Your task to perform on an android device: open chrome and create a bookmark for the current page Image 0: 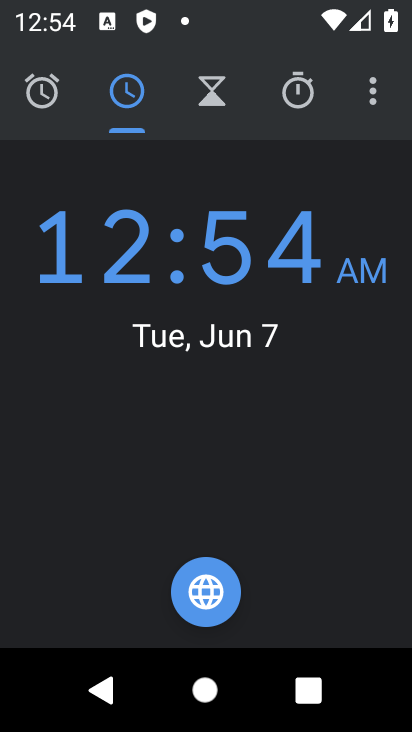
Step 0: press home button
Your task to perform on an android device: open chrome and create a bookmark for the current page Image 1: 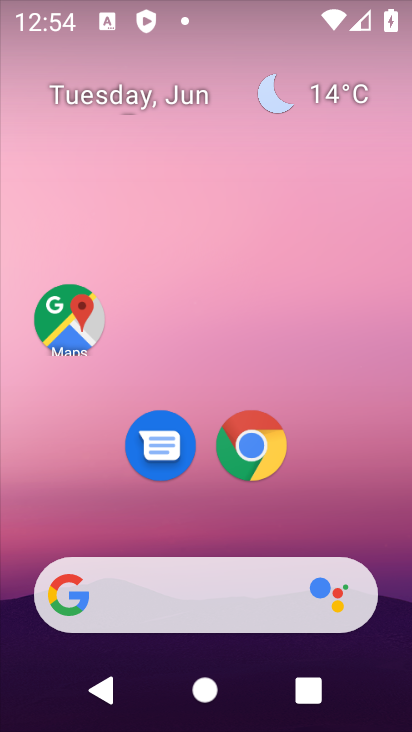
Step 1: click (251, 408)
Your task to perform on an android device: open chrome and create a bookmark for the current page Image 2: 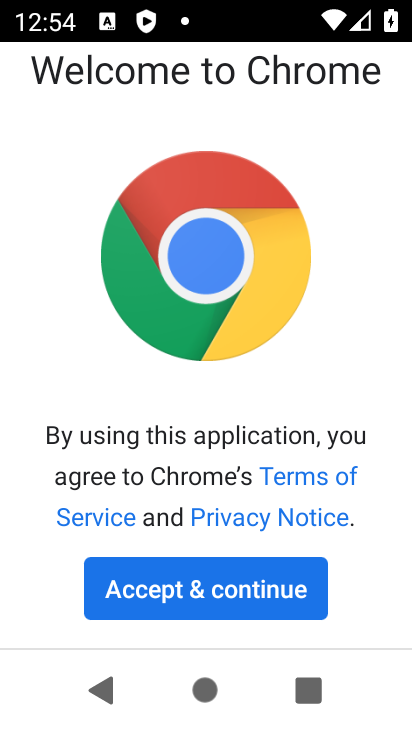
Step 2: click (151, 569)
Your task to perform on an android device: open chrome and create a bookmark for the current page Image 3: 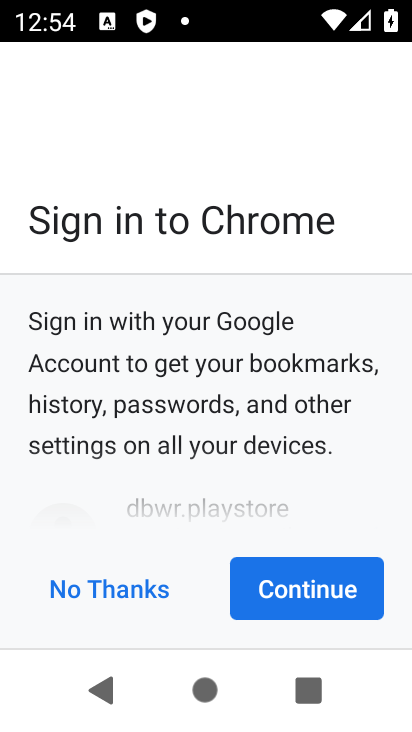
Step 3: click (278, 591)
Your task to perform on an android device: open chrome and create a bookmark for the current page Image 4: 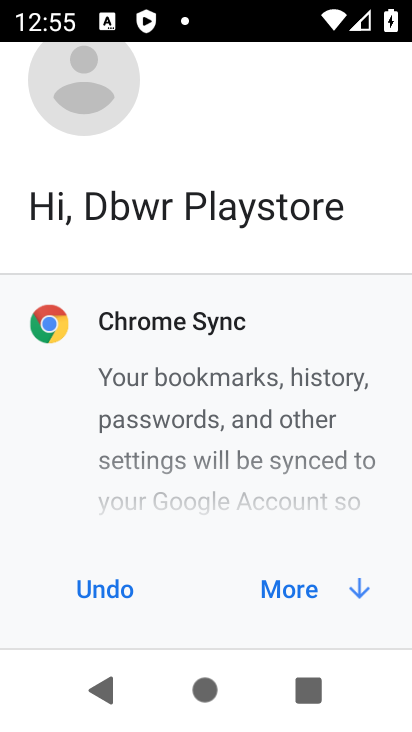
Step 4: click (278, 591)
Your task to perform on an android device: open chrome and create a bookmark for the current page Image 5: 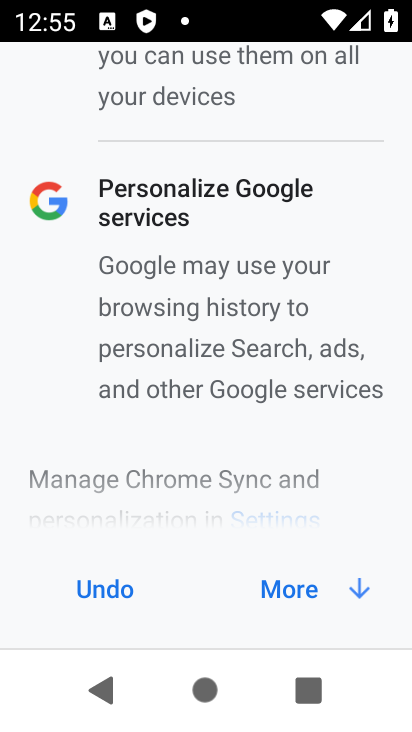
Step 5: click (278, 591)
Your task to perform on an android device: open chrome and create a bookmark for the current page Image 6: 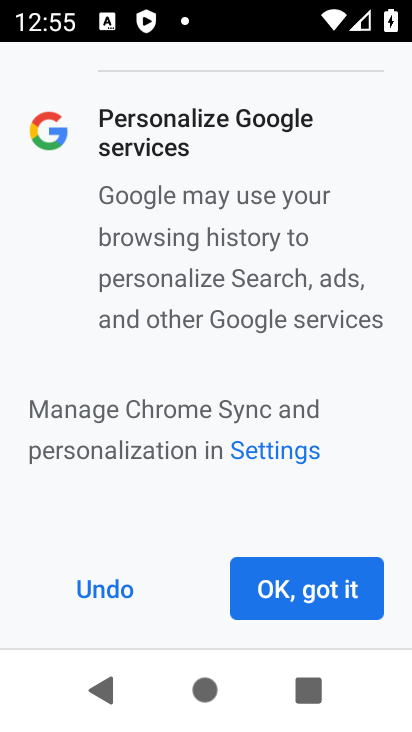
Step 6: click (278, 591)
Your task to perform on an android device: open chrome and create a bookmark for the current page Image 7: 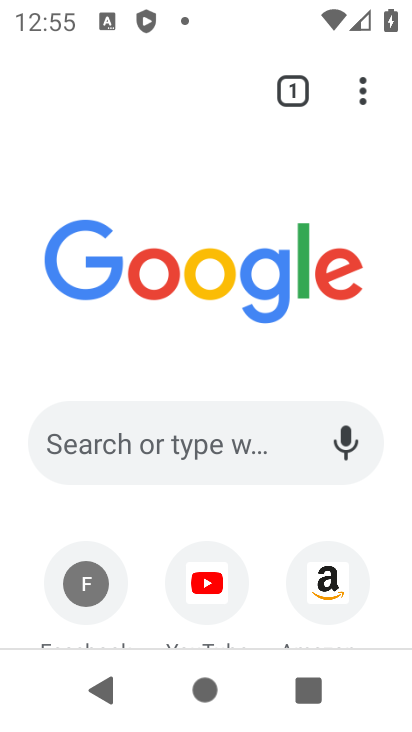
Step 7: click (376, 99)
Your task to perform on an android device: open chrome and create a bookmark for the current page Image 8: 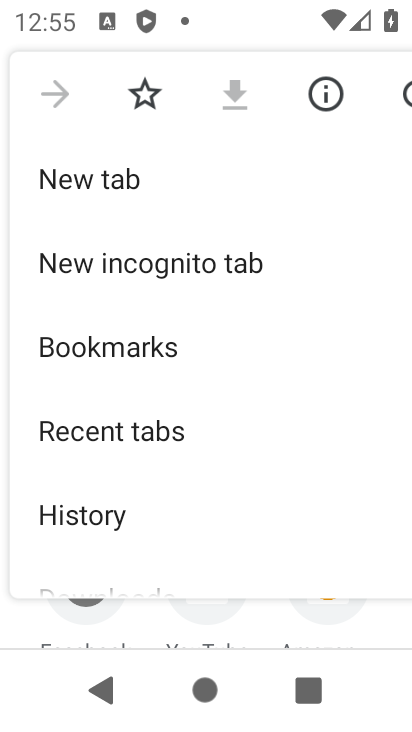
Step 8: click (149, 99)
Your task to perform on an android device: open chrome and create a bookmark for the current page Image 9: 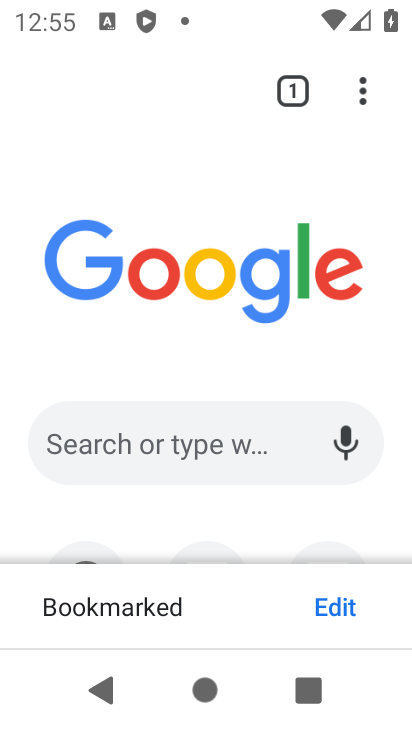
Step 9: task complete